Your task to perform on an android device: See recent photos Image 0: 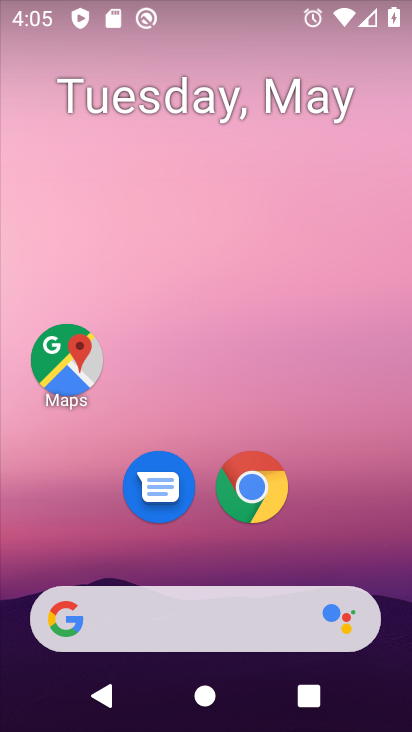
Step 0: drag from (379, 533) to (255, 117)
Your task to perform on an android device: See recent photos Image 1: 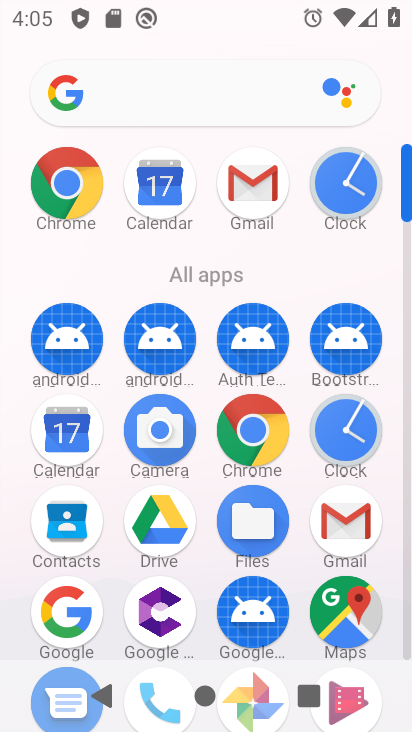
Step 1: drag from (313, 541) to (331, 197)
Your task to perform on an android device: See recent photos Image 2: 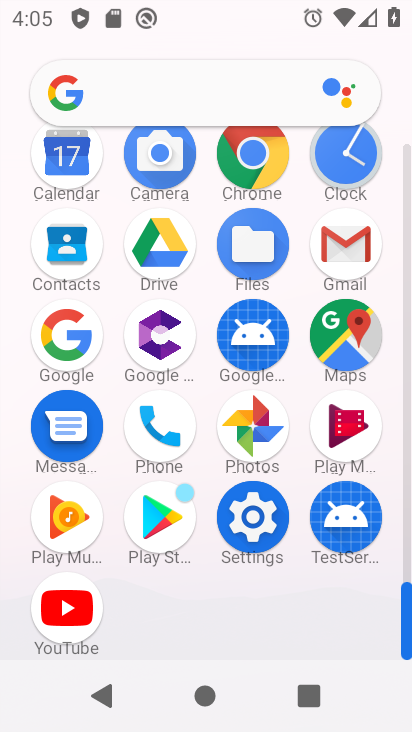
Step 2: click (253, 457)
Your task to perform on an android device: See recent photos Image 3: 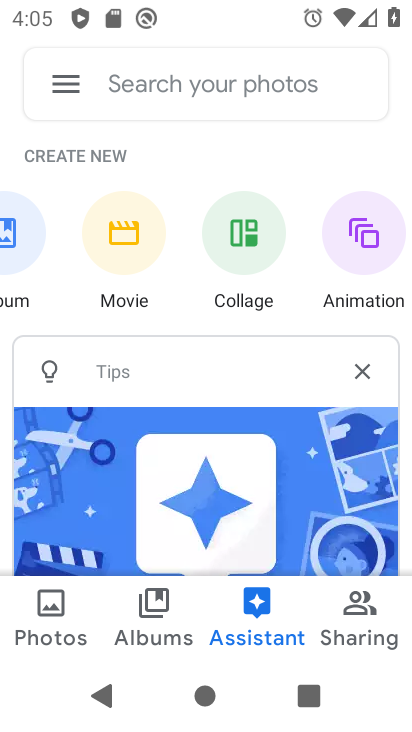
Step 3: click (54, 618)
Your task to perform on an android device: See recent photos Image 4: 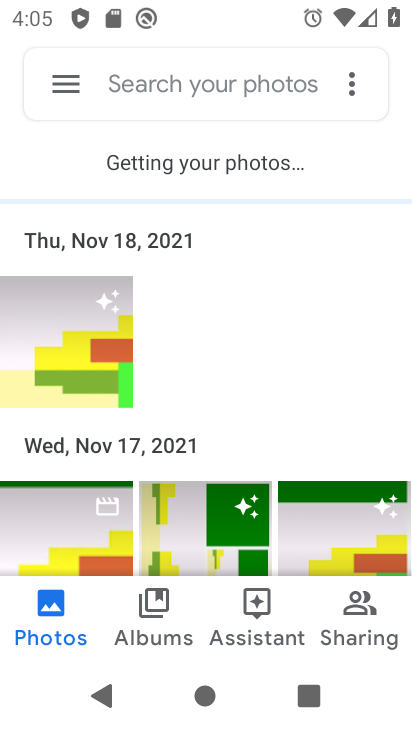
Step 4: task complete